Your task to perform on an android device: change the clock style Image 0: 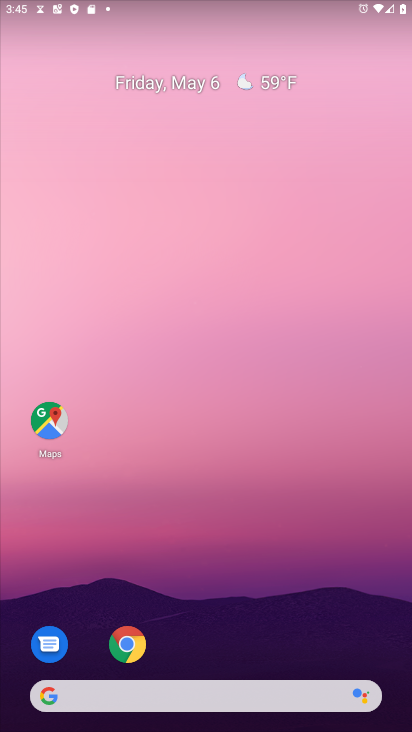
Step 0: drag from (244, 580) to (121, 1)
Your task to perform on an android device: change the clock style Image 1: 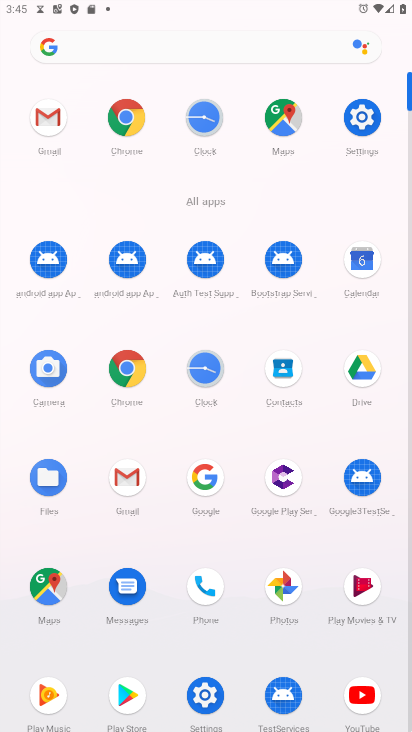
Step 1: click (205, 370)
Your task to perform on an android device: change the clock style Image 2: 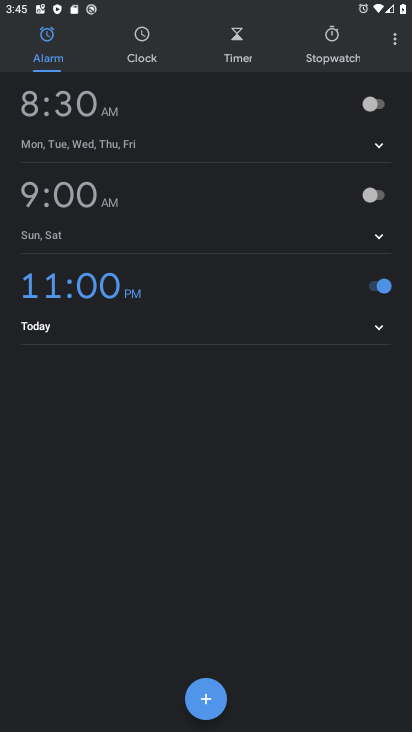
Step 2: click (394, 34)
Your task to perform on an android device: change the clock style Image 3: 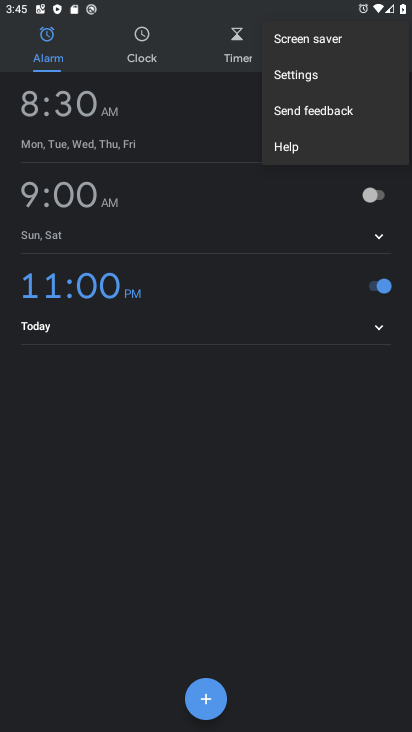
Step 3: click (302, 73)
Your task to perform on an android device: change the clock style Image 4: 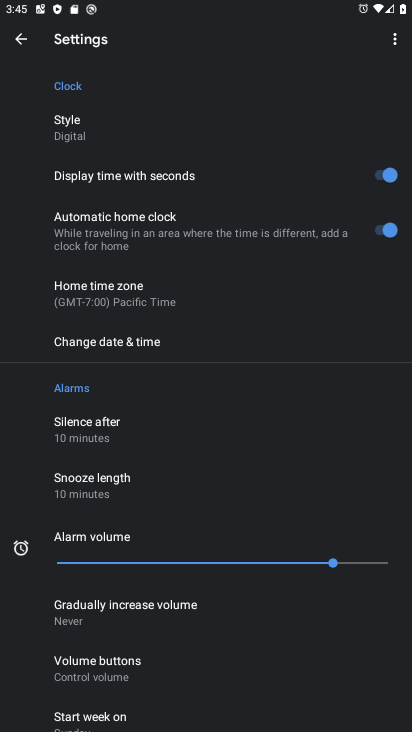
Step 4: click (68, 137)
Your task to perform on an android device: change the clock style Image 5: 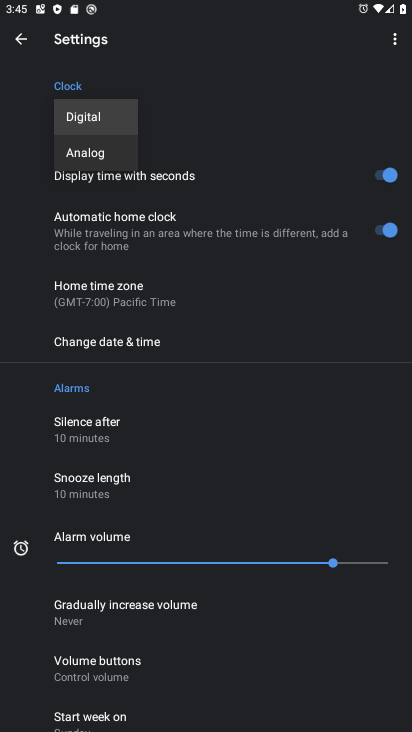
Step 5: click (83, 151)
Your task to perform on an android device: change the clock style Image 6: 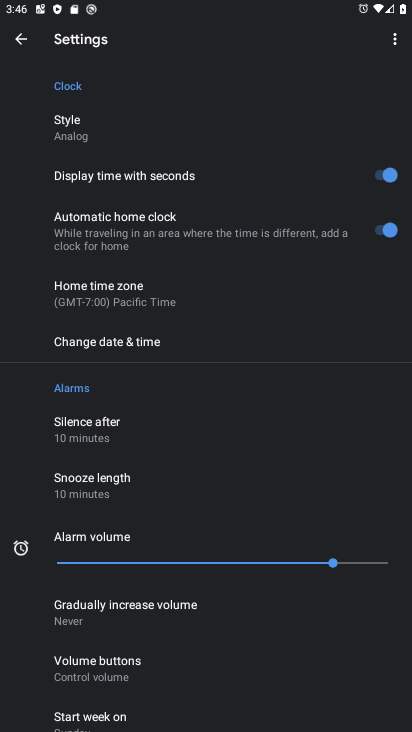
Step 6: task complete